Your task to perform on an android device: add a contact Image 0: 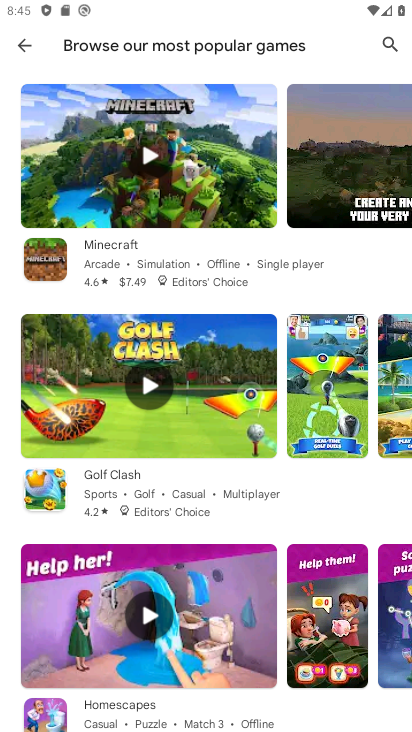
Step 0: press home button
Your task to perform on an android device: add a contact Image 1: 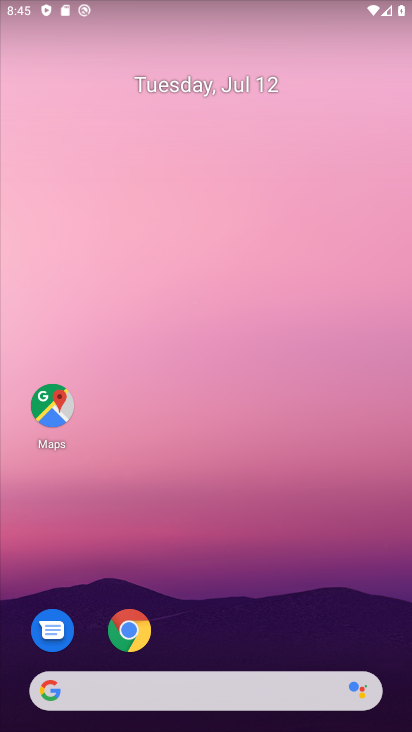
Step 1: drag from (246, 616) to (236, 223)
Your task to perform on an android device: add a contact Image 2: 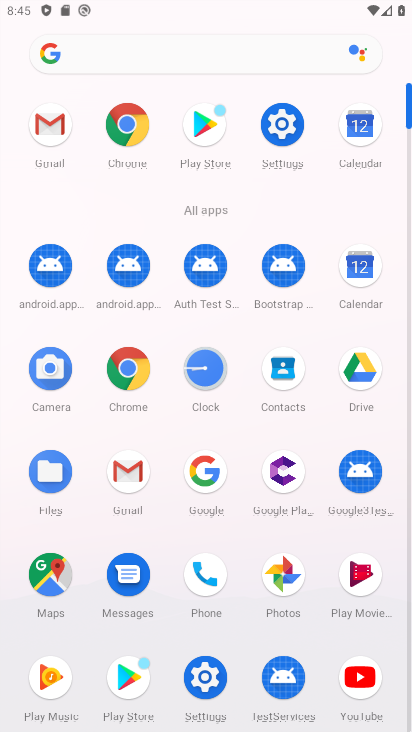
Step 2: click (286, 382)
Your task to perform on an android device: add a contact Image 3: 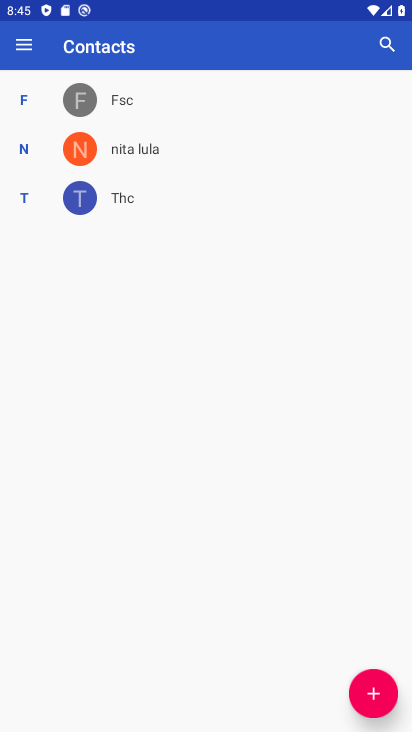
Step 3: click (361, 680)
Your task to perform on an android device: add a contact Image 4: 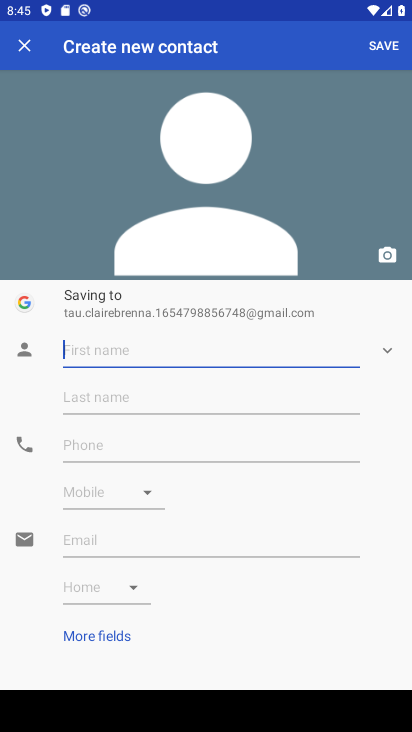
Step 4: click (185, 348)
Your task to perform on an android device: add a contact Image 5: 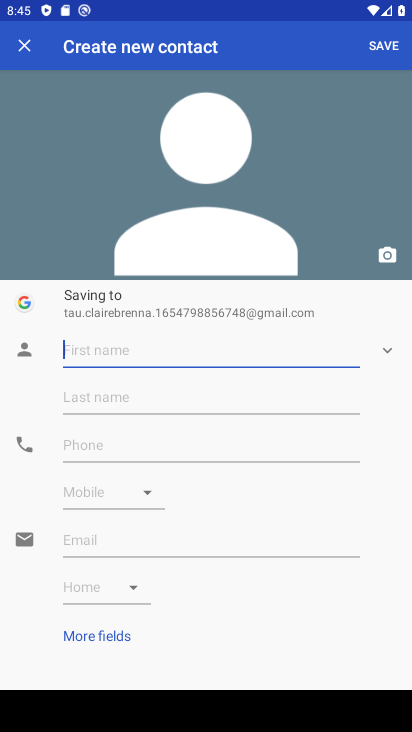
Step 5: type "ffffffffffffffff"
Your task to perform on an android device: add a contact Image 6: 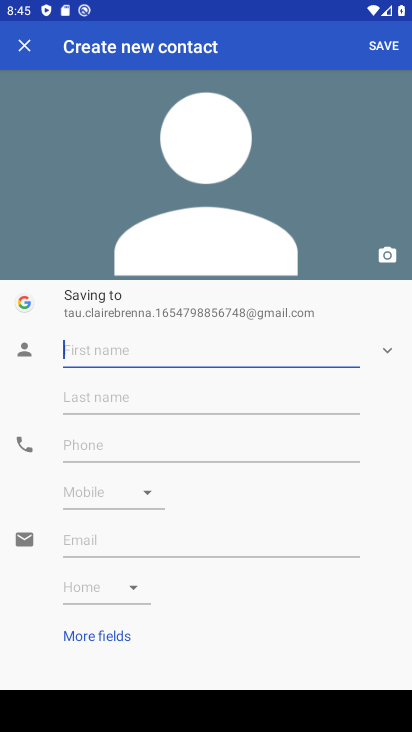
Step 6: click (119, 347)
Your task to perform on an android device: add a contact Image 7: 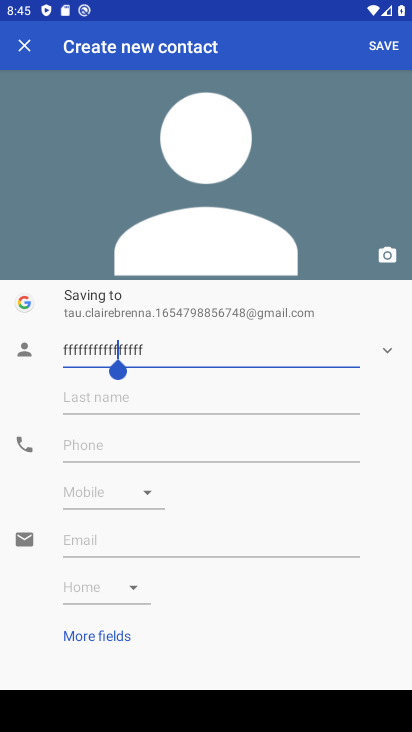
Step 7: click (118, 451)
Your task to perform on an android device: add a contact Image 8: 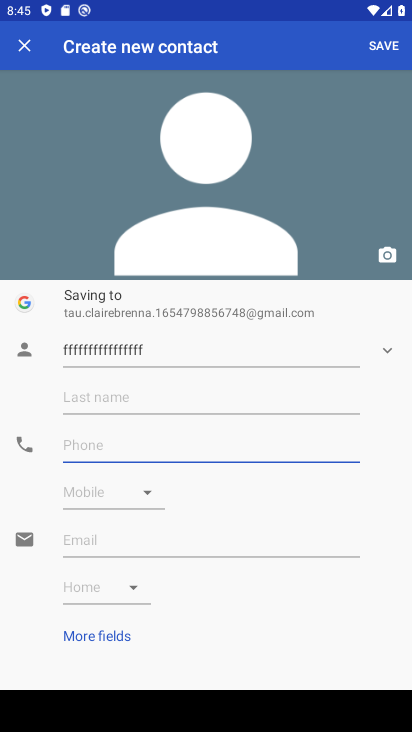
Step 8: type "22222222222222222222222222"
Your task to perform on an android device: add a contact Image 9: 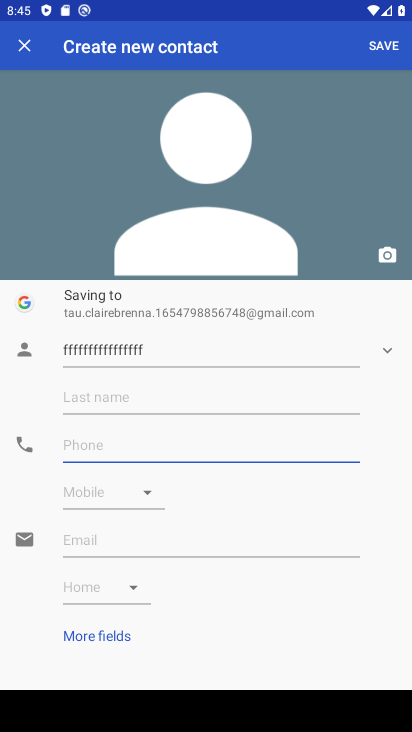
Step 9: click (166, 447)
Your task to perform on an android device: add a contact Image 10: 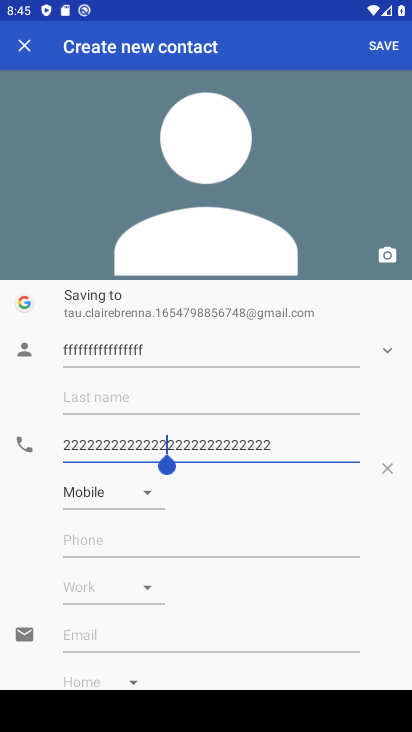
Step 10: click (378, 44)
Your task to perform on an android device: add a contact Image 11: 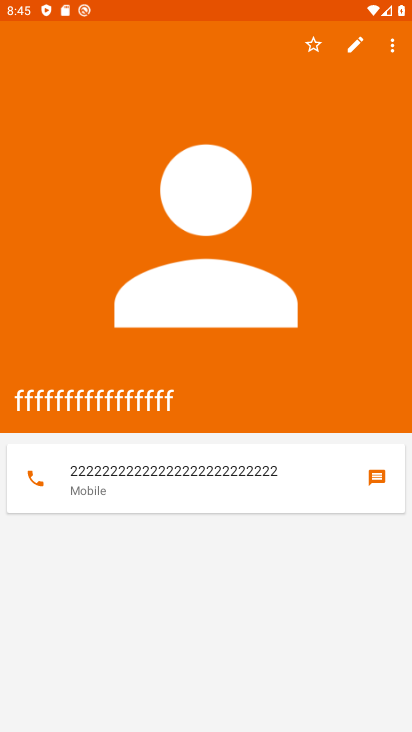
Step 11: task complete